Your task to perform on an android device: Open Yahoo.com Image 0: 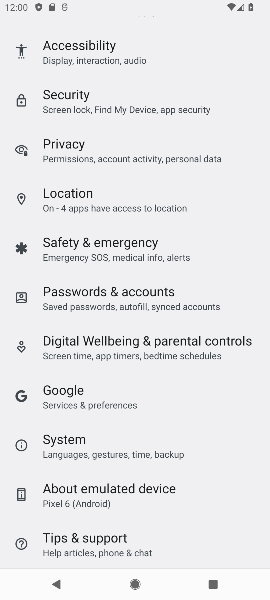
Step 0: press home button
Your task to perform on an android device: Open Yahoo.com Image 1: 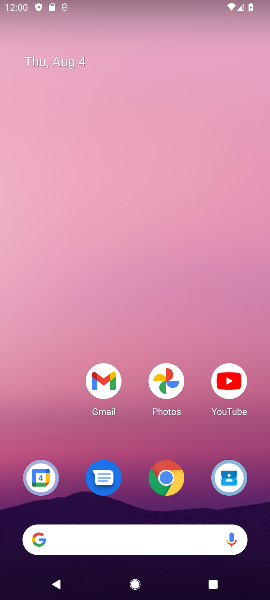
Step 1: drag from (189, 509) to (215, 64)
Your task to perform on an android device: Open Yahoo.com Image 2: 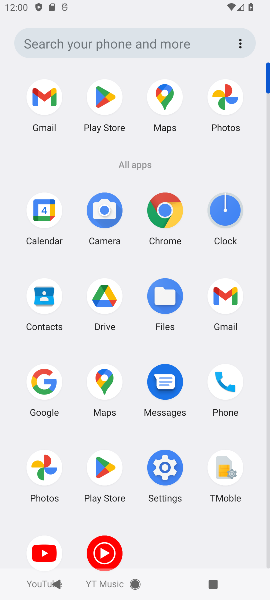
Step 2: click (164, 206)
Your task to perform on an android device: Open Yahoo.com Image 3: 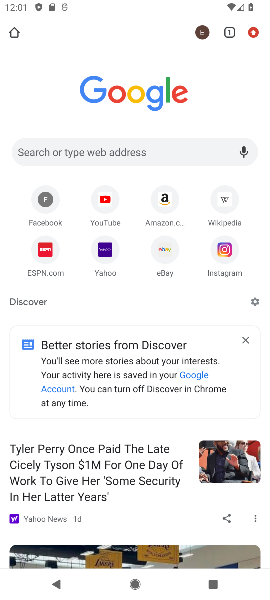
Step 3: click (145, 145)
Your task to perform on an android device: Open Yahoo.com Image 4: 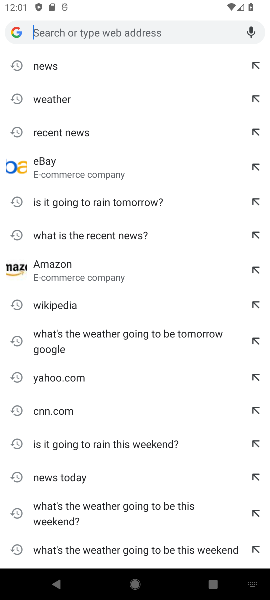
Step 4: type "yahoo.com"
Your task to perform on an android device: Open Yahoo.com Image 5: 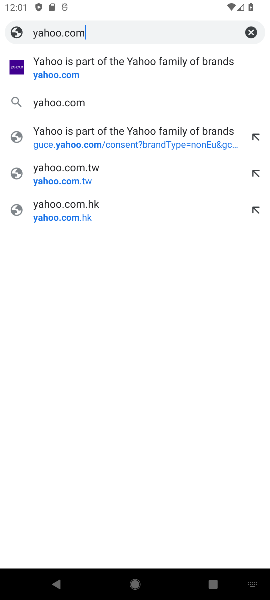
Step 5: click (63, 66)
Your task to perform on an android device: Open Yahoo.com Image 6: 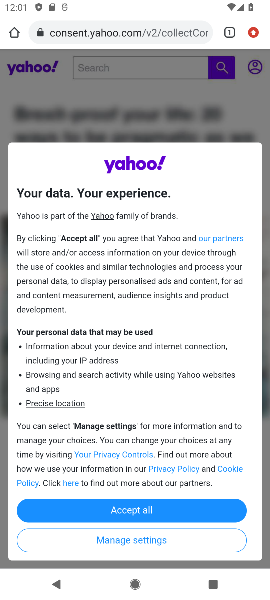
Step 6: click (153, 507)
Your task to perform on an android device: Open Yahoo.com Image 7: 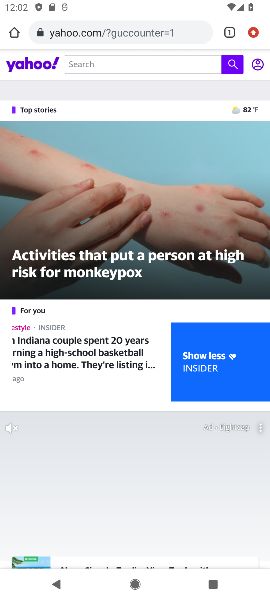
Step 7: task complete